Your task to perform on an android device: Search for amazon basics triple a on amazon, select the first entry, add it to the cart, then select checkout. Image 0: 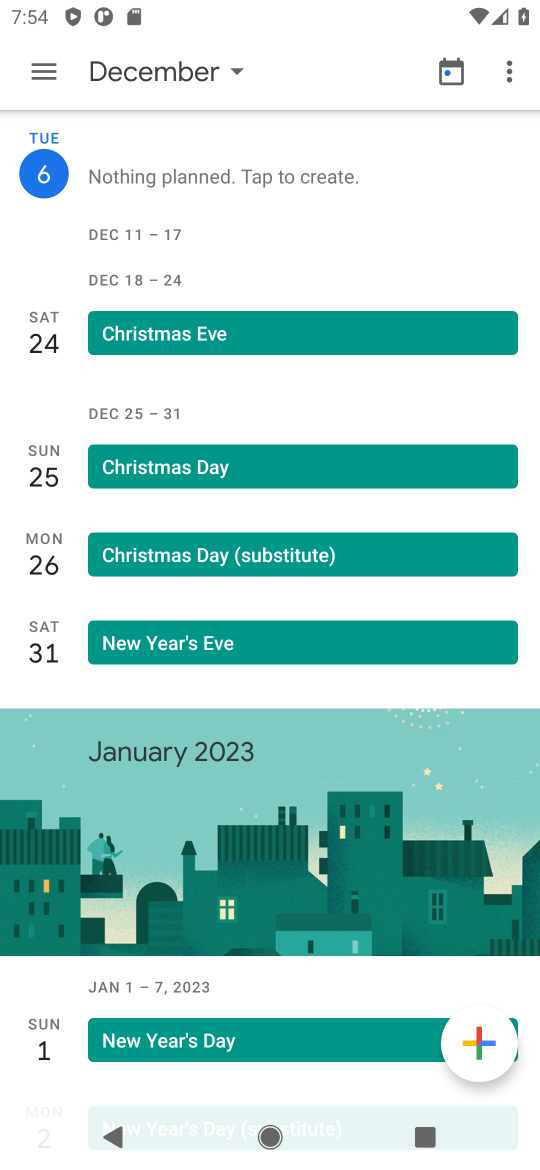
Step 0: press home button
Your task to perform on an android device: Search for amazon basics triple a on amazon, select the first entry, add it to the cart, then select checkout. Image 1: 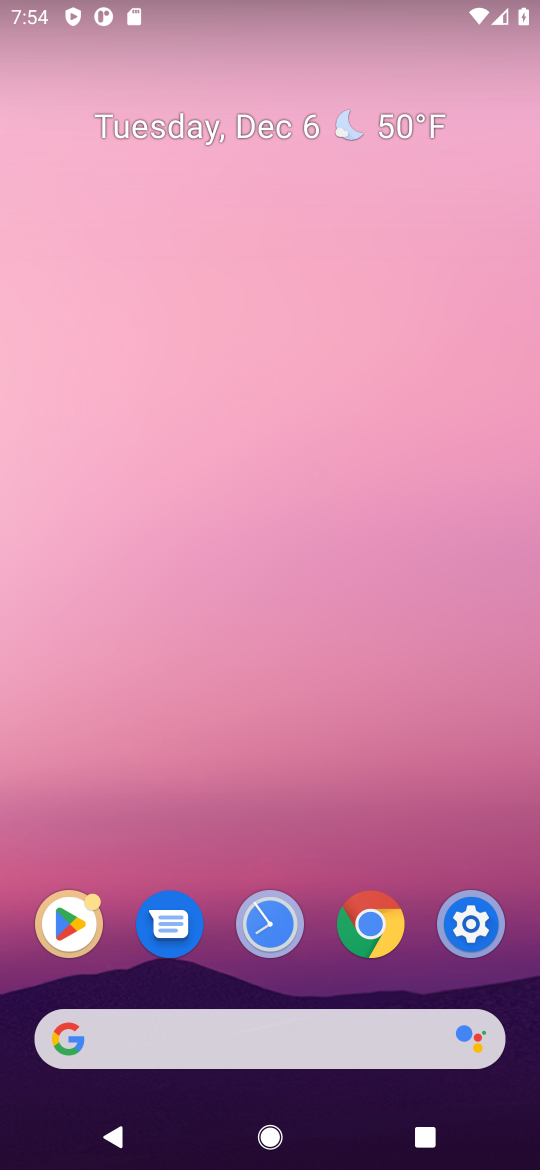
Step 1: click (244, 1010)
Your task to perform on an android device: Search for amazon basics triple a on amazon, select the first entry, add it to the cart, then select checkout. Image 2: 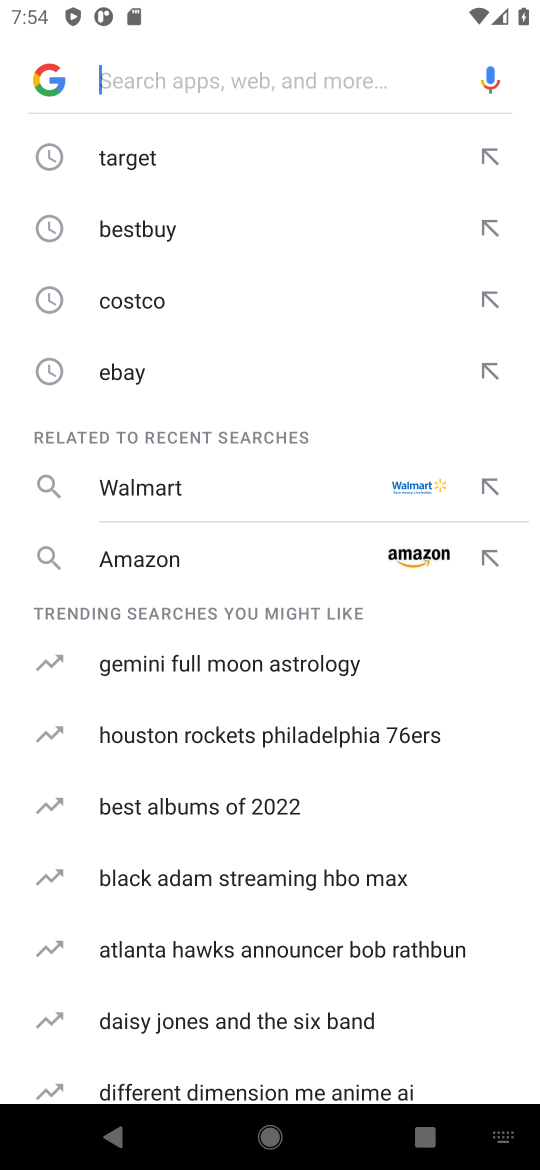
Step 2: type "amazon"
Your task to perform on an android device: Search for amazon basics triple a on amazon, select the first entry, add it to the cart, then select checkout. Image 3: 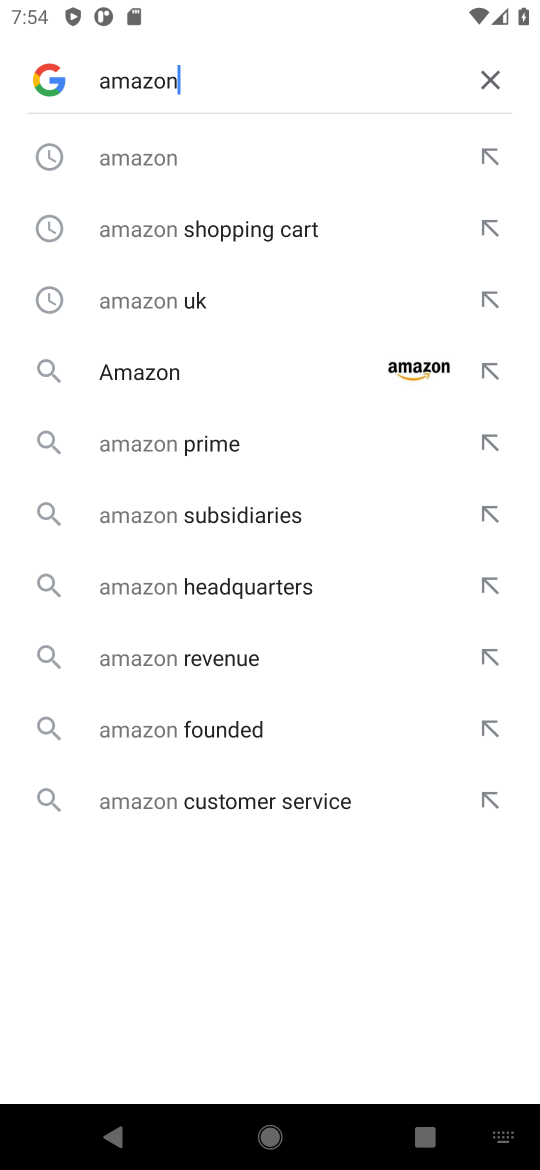
Step 3: click (173, 373)
Your task to perform on an android device: Search for amazon basics triple a on amazon, select the first entry, add it to the cart, then select checkout. Image 4: 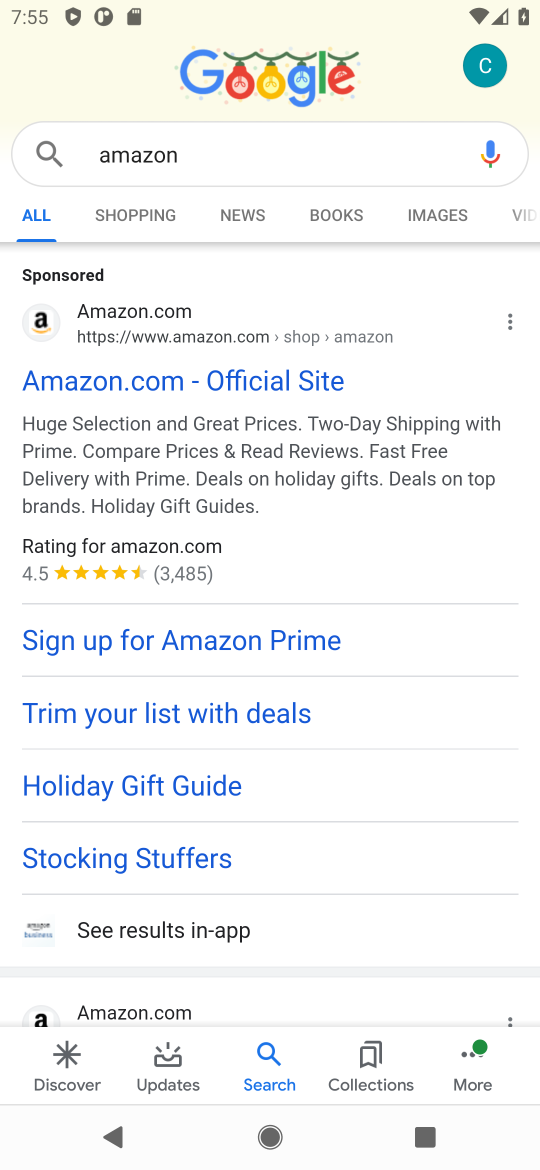
Step 4: click (173, 373)
Your task to perform on an android device: Search for amazon basics triple a on amazon, select the first entry, add it to the cart, then select checkout. Image 5: 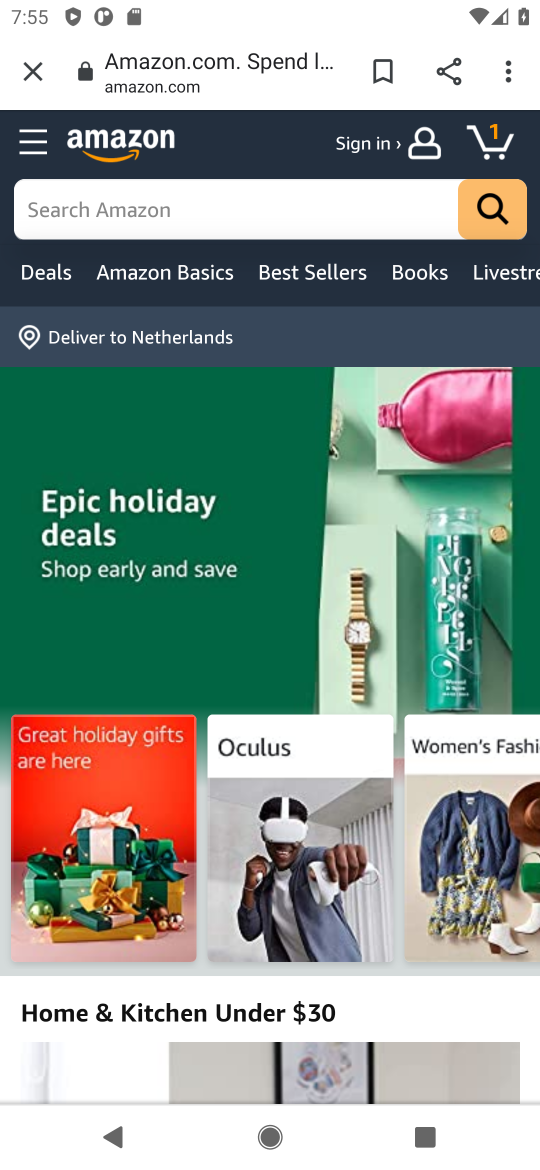
Step 5: click (243, 227)
Your task to perform on an android device: Search for amazon basics triple a on amazon, select the first entry, add it to the cart, then select checkout. Image 6: 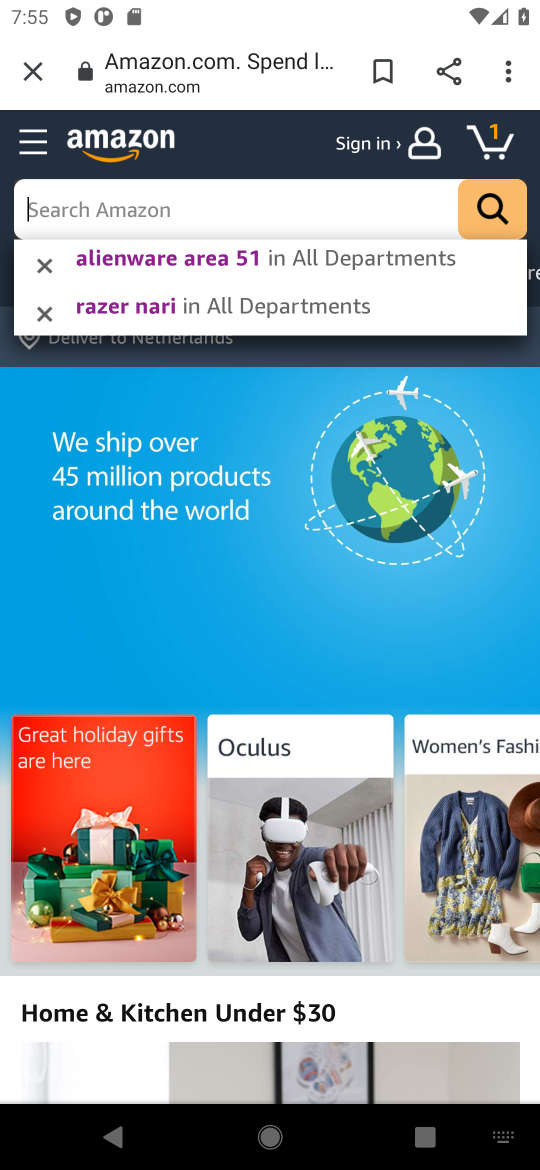
Step 6: type "amazon basics triple a"
Your task to perform on an android device: Search for amazon basics triple a on amazon, select the first entry, add it to the cart, then select checkout. Image 7: 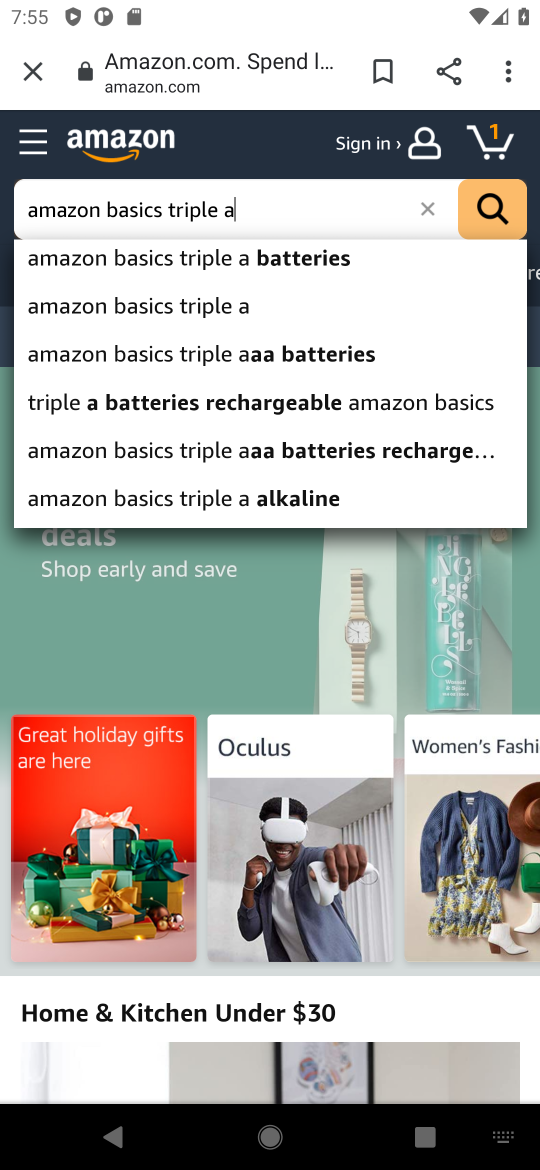
Step 7: click (376, 237)
Your task to perform on an android device: Search for amazon basics triple a on amazon, select the first entry, add it to the cart, then select checkout. Image 8: 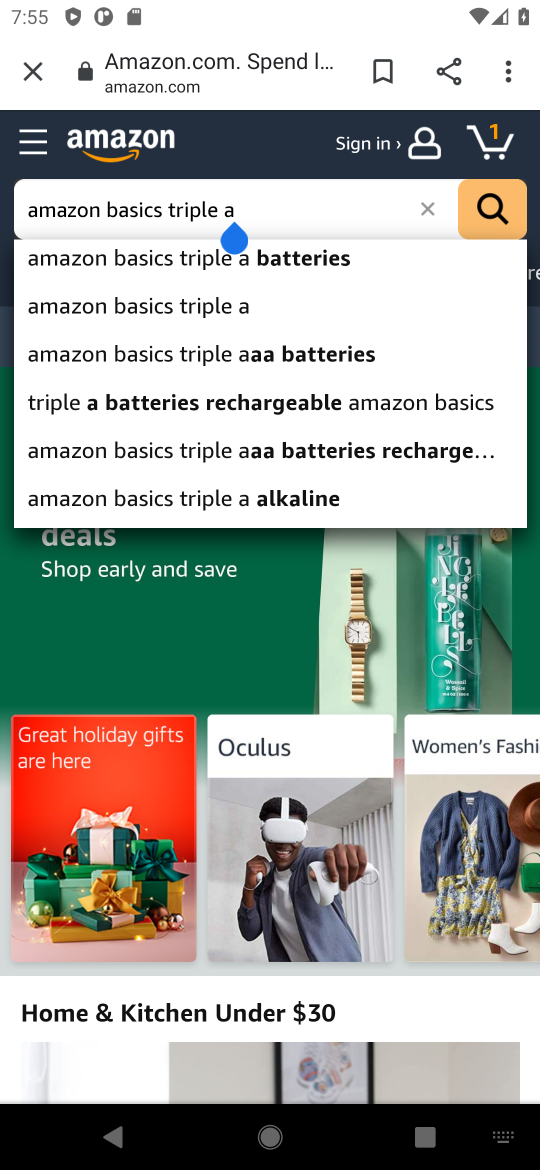
Step 8: click (313, 273)
Your task to perform on an android device: Search for amazon basics triple a on amazon, select the first entry, add it to the cart, then select checkout. Image 9: 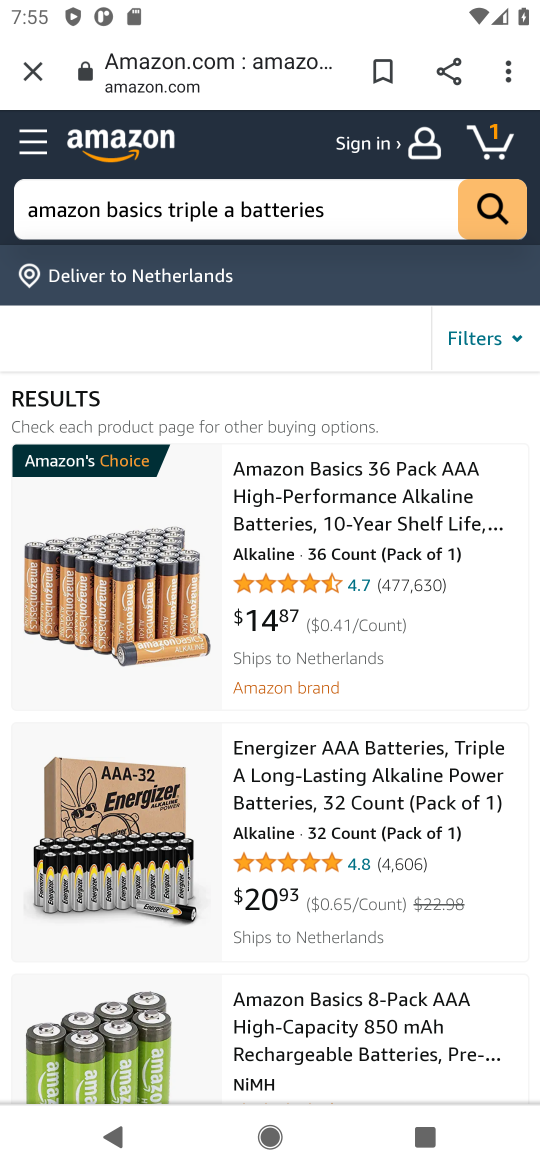
Step 9: click (316, 522)
Your task to perform on an android device: Search for amazon basics triple a on amazon, select the first entry, add it to the cart, then select checkout. Image 10: 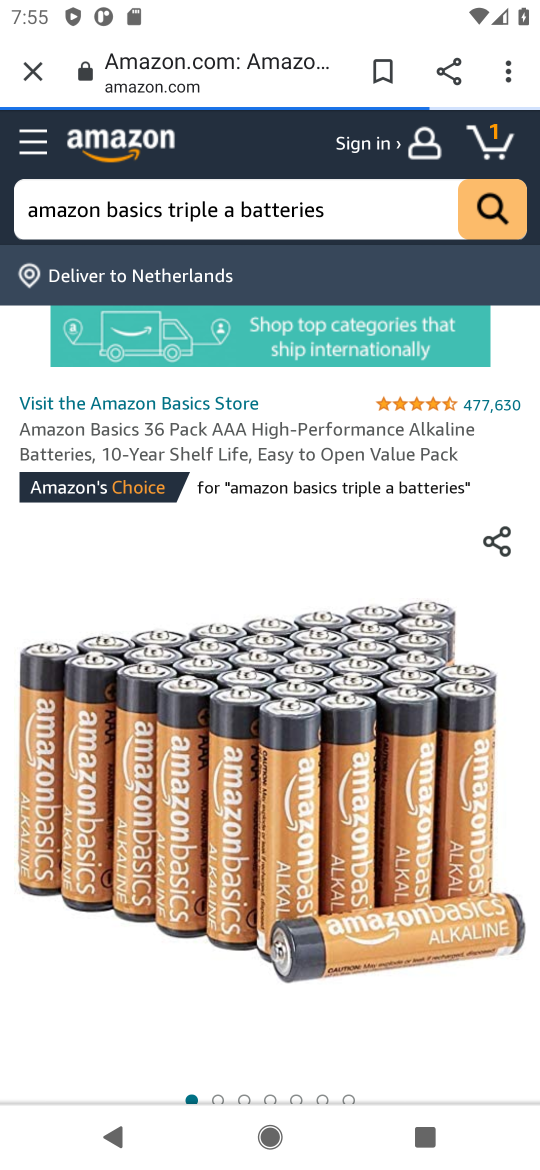
Step 10: drag from (214, 981) to (100, 96)
Your task to perform on an android device: Search for amazon basics triple a on amazon, select the first entry, add it to the cart, then select checkout. Image 11: 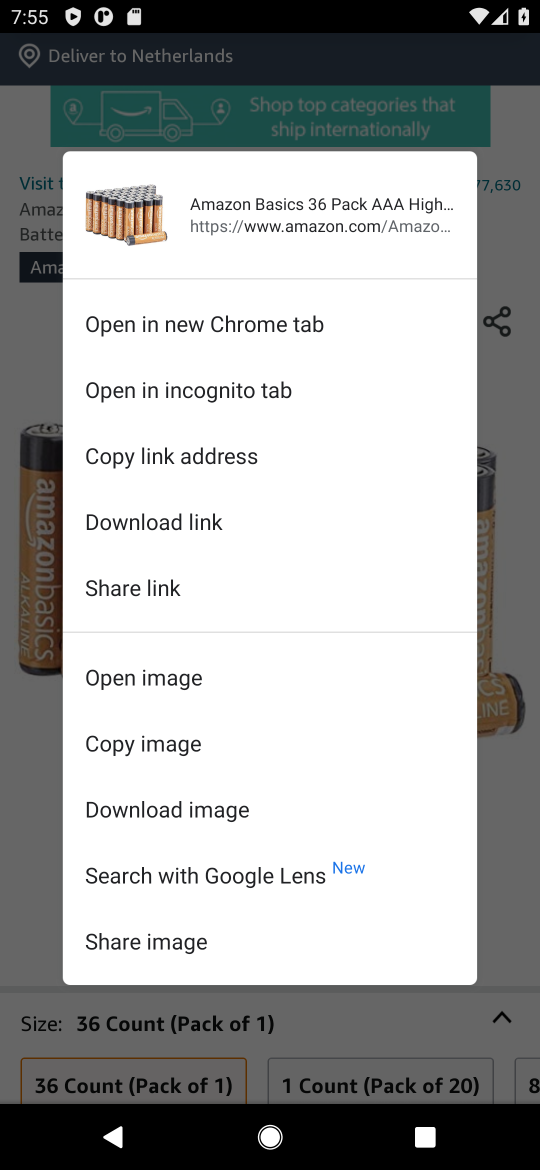
Step 11: click (520, 890)
Your task to perform on an android device: Search for amazon basics triple a on amazon, select the first entry, add it to the cart, then select checkout. Image 12: 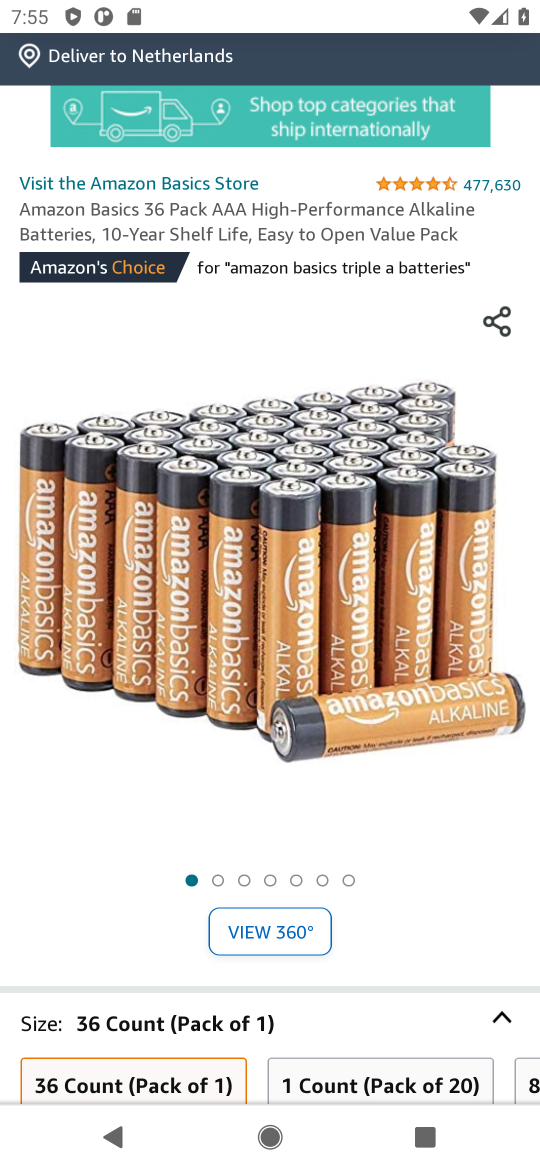
Step 12: drag from (127, 987) to (100, 372)
Your task to perform on an android device: Search for amazon basics triple a on amazon, select the first entry, add it to the cart, then select checkout. Image 13: 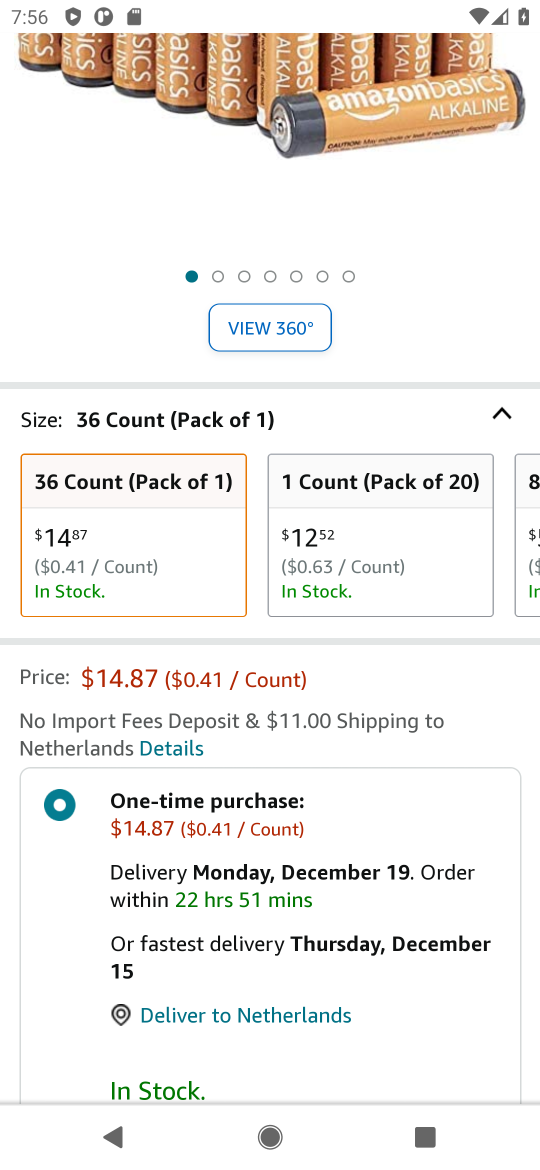
Step 13: drag from (449, 1023) to (445, 924)
Your task to perform on an android device: Search for amazon basics triple a on amazon, select the first entry, add it to the cart, then select checkout. Image 14: 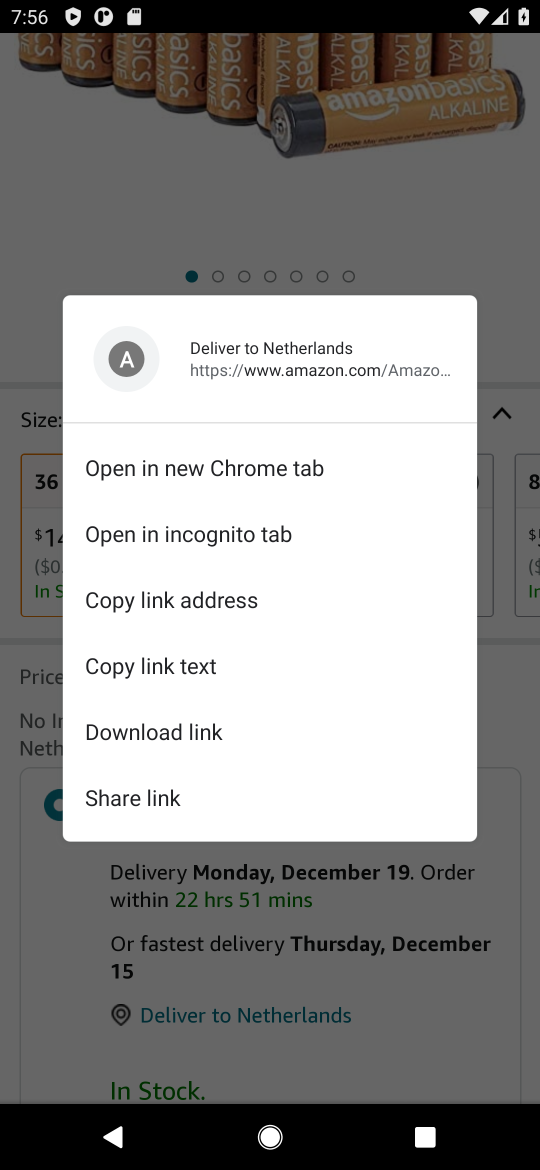
Step 14: click (413, 1015)
Your task to perform on an android device: Search for amazon basics triple a on amazon, select the first entry, add it to the cart, then select checkout. Image 15: 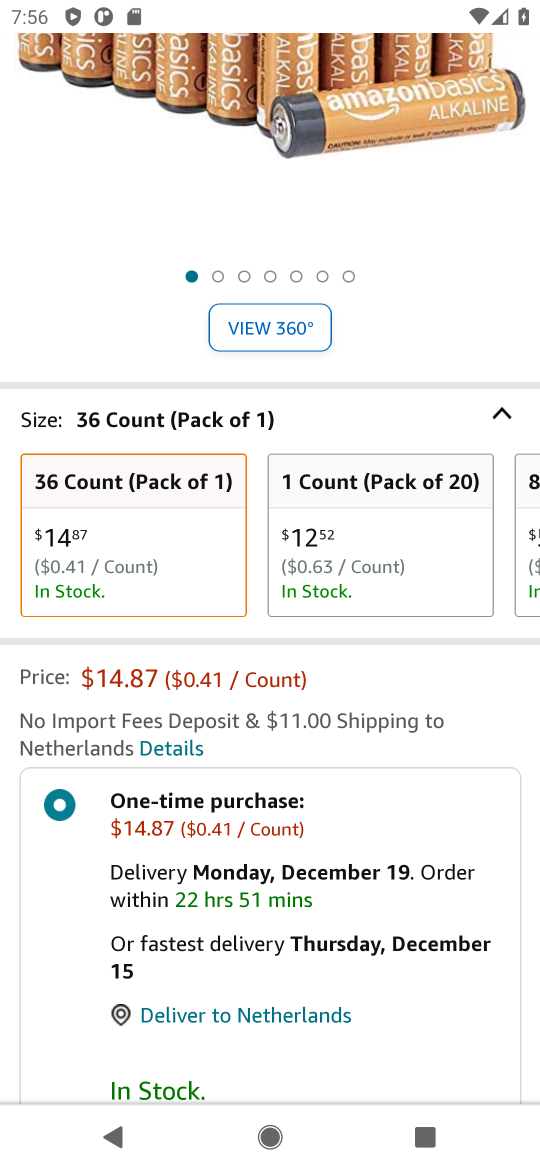
Step 15: task complete